Your task to perform on an android device: Turn off the flashlight Image 0: 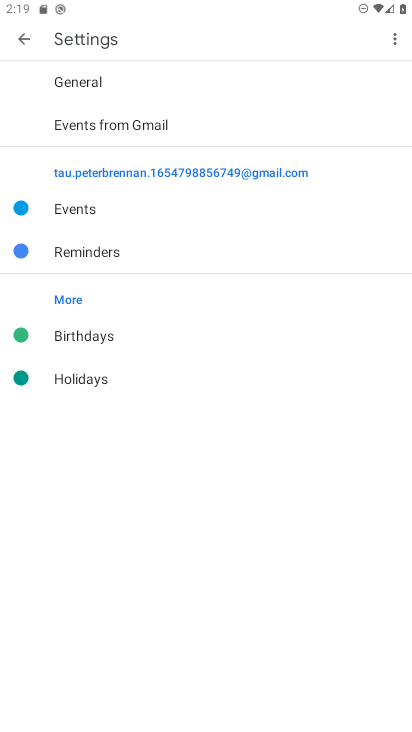
Step 0: press home button
Your task to perform on an android device: Turn off the flashlight Image 1: 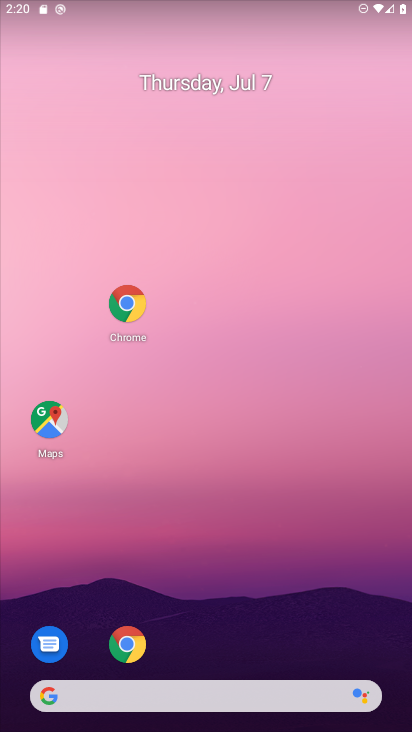
Step 1: drag from (254, 595) to (292, 23)
Your task to perform on an android device: Turn off the flashlight Image 2: 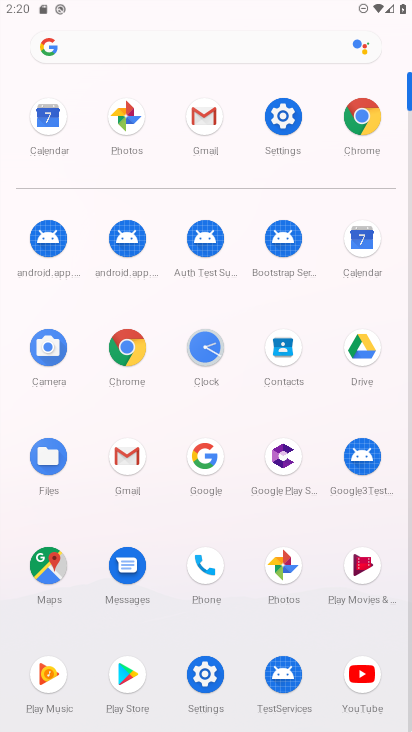
Step 2: click (280, 116)
Your task to perform on an android device: Turn off the flashlight Image 3: 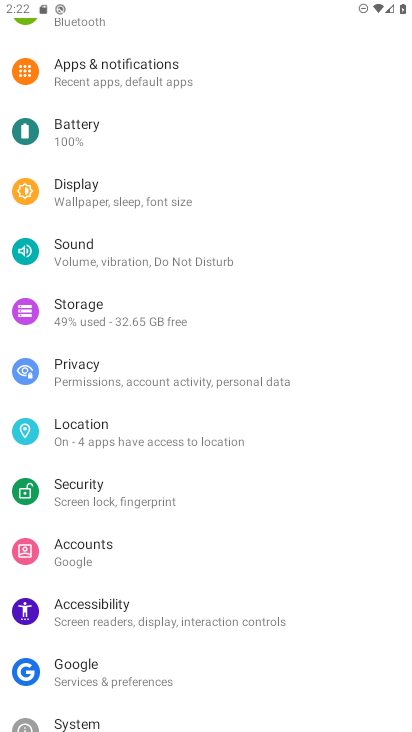
Step 3: task complete